Your task to perform on an android device: Open the phone app and click the voicemail tab. Image 0: 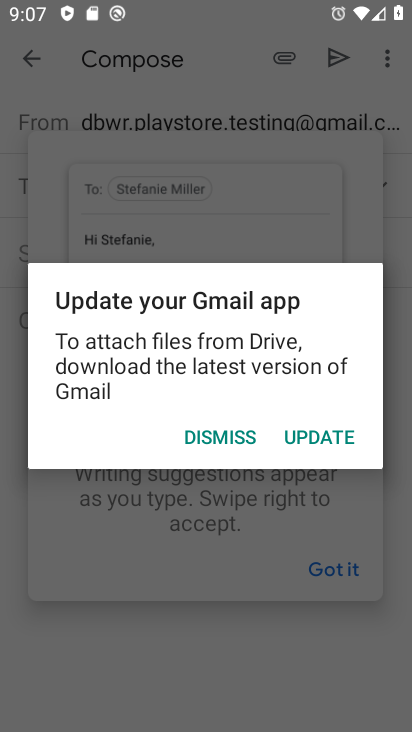
Step 0: press home button
Your task to perform on an android device: Open the phone app and click the voicemail tab. Image 1: 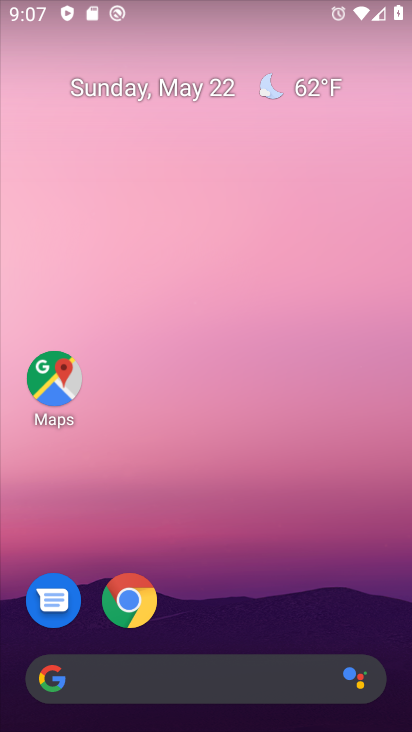
Step 1: drag from (195, 605) to (162, 81)
Your task to perform on an android device: Open the phone app and click the voicemail tab. Image 2: 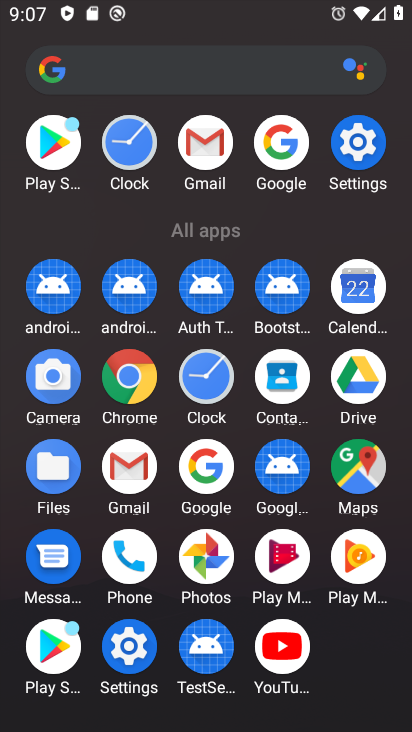
Step 2: click (122, 560)
Your task to perform on an android device: Open the phone app and click the voicemail tab. Image 3: 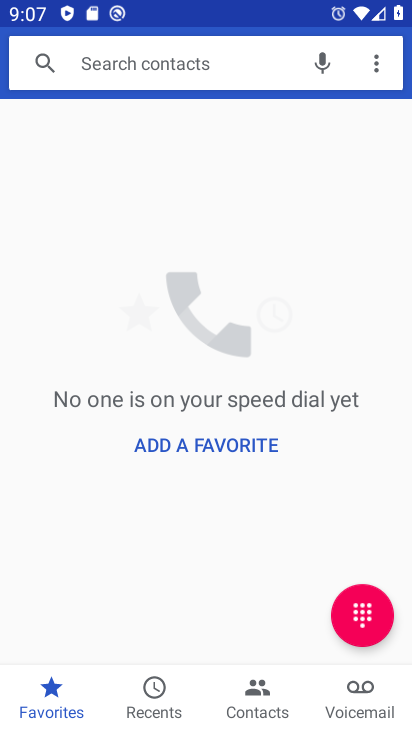
Step 3: click (361, 689)
Your task to perform on an android device: Open the phone app and click the voicemail tab. Image 4: 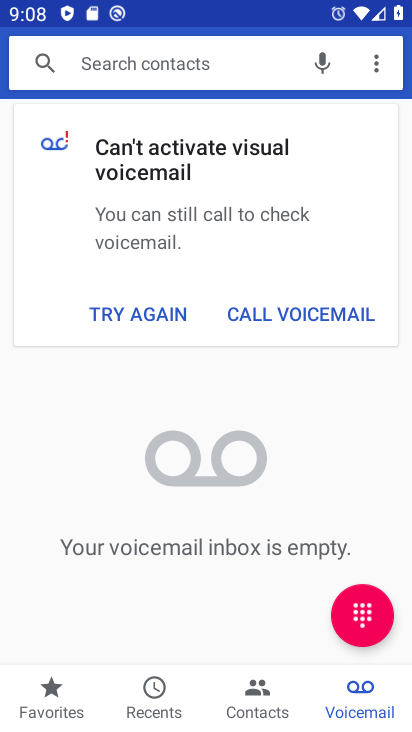
Step 4: task complete